Your task to perform on an android device: Search for sushi restaurants on Maps Image 0: 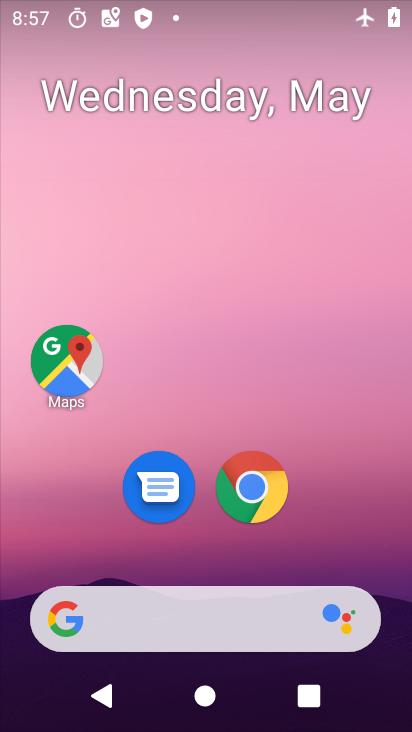
Step 0: click (65, 380)
Your task to perform on an android device: Search for sushi restaurants on Maps Image 1: 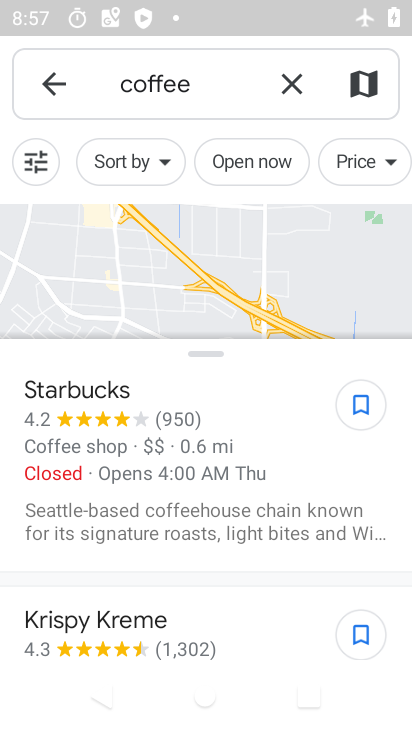
Step 1: click (283, 76)
Your task to perform on an android device: Search for sushi restaurants on Maps Image 2: 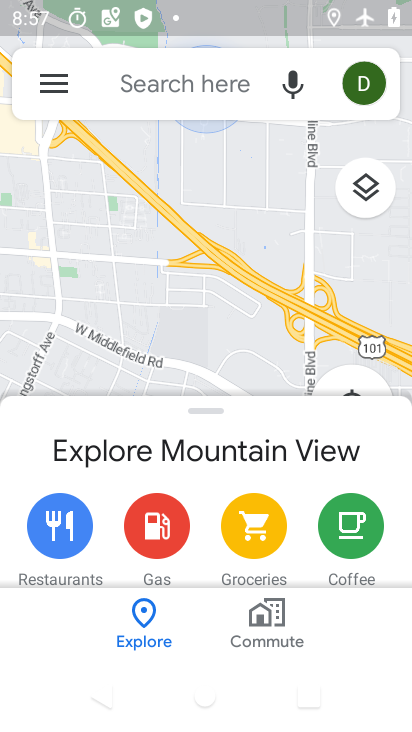
Step 2: click (228, 83)
Your task to perform on an android device: Search for sushi restaurants on Maps Image 3: 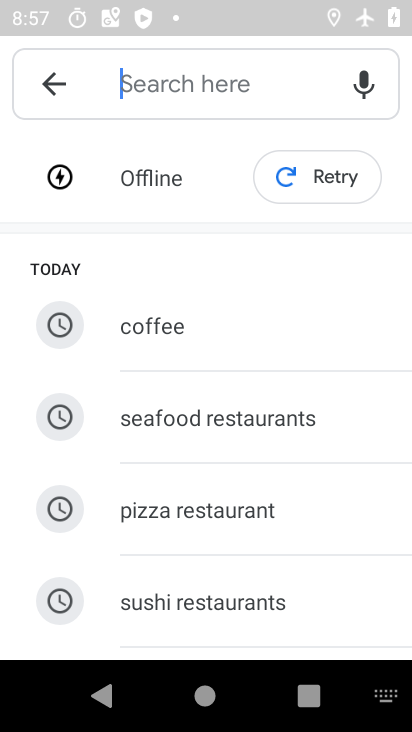
Step 3: click (230, 612)
Your task to perform on an android device: Search for sushi restaurants on Maps Image 4: 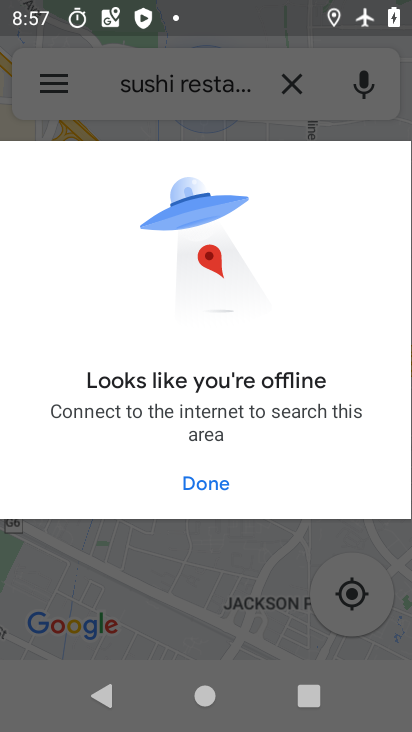
Step 4: task complete